Your task to perform on an android device: Search for Italian restaurants on Maps Image 0: 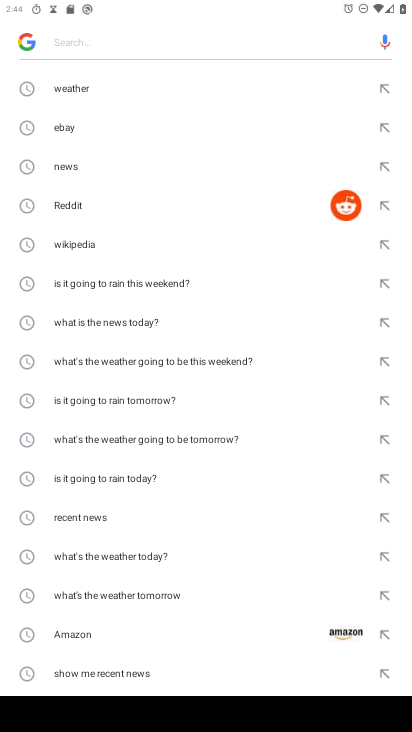
Step 0: press home button
Your task to perform on an android device: Search for Italian restaurants on Maps Image 1: 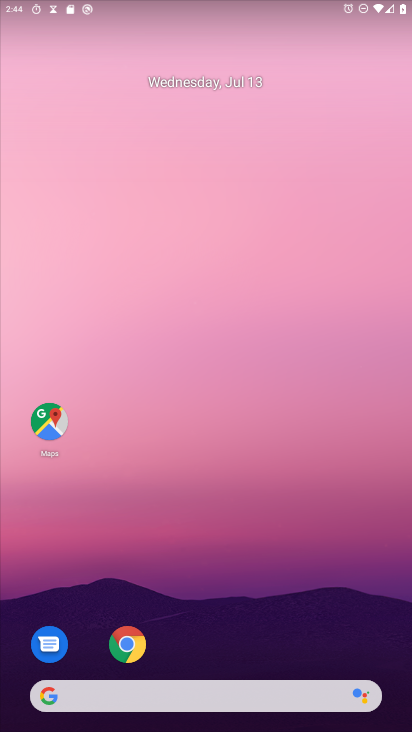
Step 1: click (54, 425)
Your task to perform on an android device: Search for Italian restaurants on Maps Image 2: 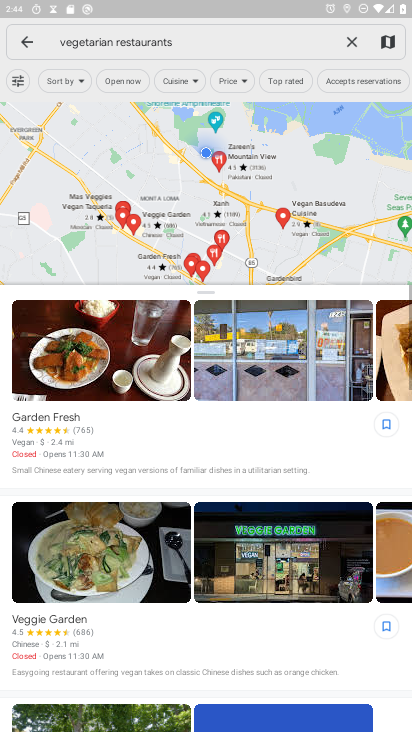
Step 2: click (347, 40)
Your task to perform on an android device: Search for Italian restaurants on Maps Image 3: 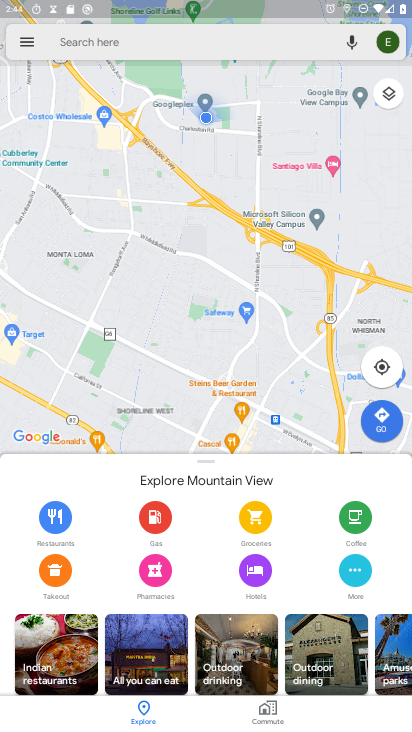
Step 3: type "Italian restaurants"
Your task to perform on an android device: Search for Italian restaurants on Maps Image 4: 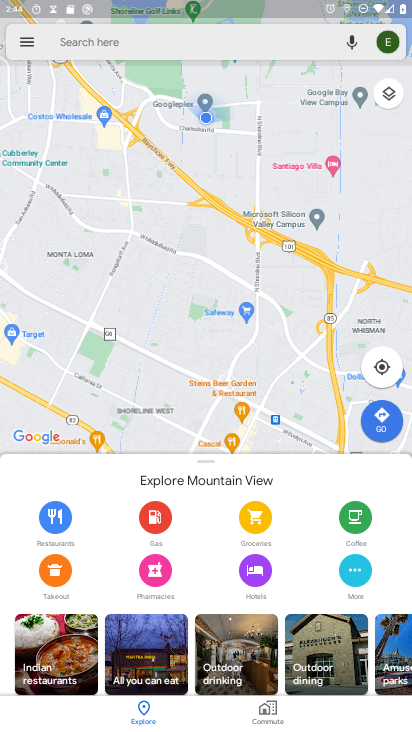
Step 4: click (103, 39)
Your task to perform on an android device: Search for Italian restaurants on Maps Image 5: 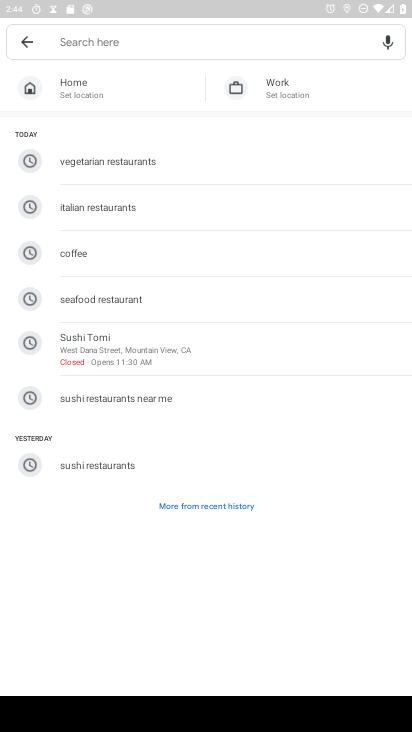
Step 5: click (106, 35)
Your task to perform on an android device: Search for Italian restaurants on Maps Image 6: 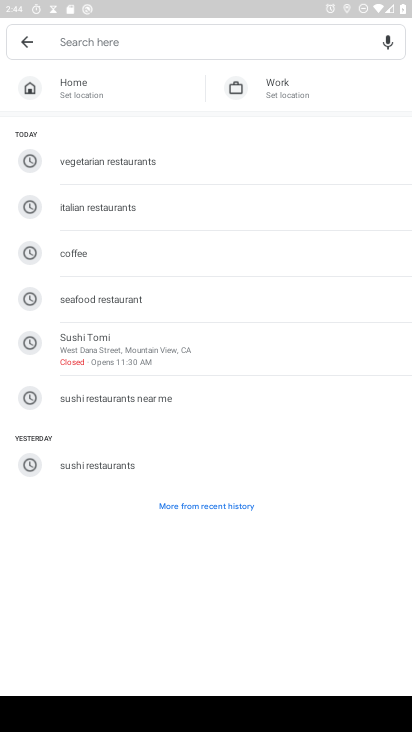
Step 6: type "Italian restaurants"
Your task to perform on an android device: Search for Italian restaurants on Maps Image 7: 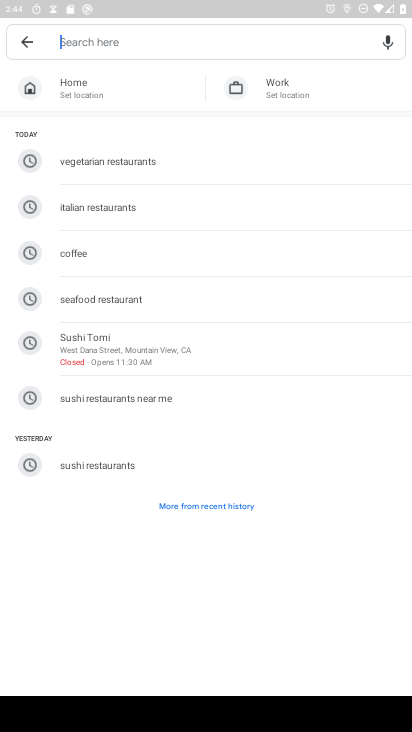
Step 7: click (97, 40)
Your task to perform on an android device: Search for Italian restaurants on Maps Image 8: 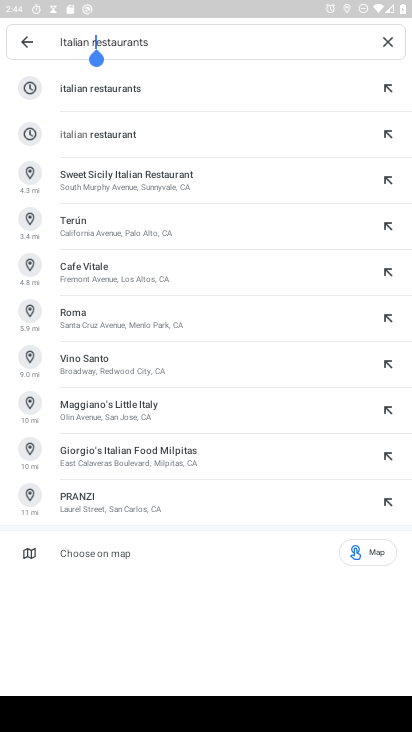
Step 8: press enter
Your task to perform on an android device: Search for Italian restaurants on Maps Image 9: 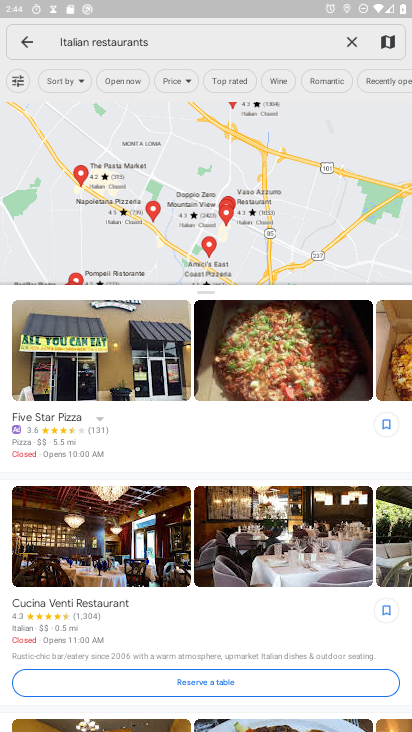
Step 9: task complete